Your task to perform on an android device: turn off wifi Image 0: 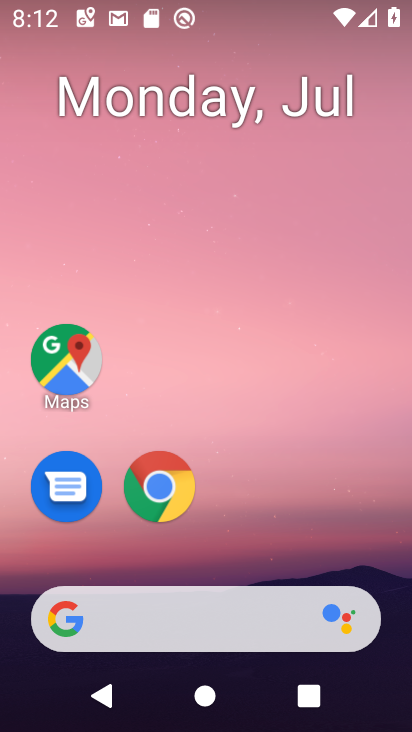
Step 0: drag from (340, 527) to (366, 78)
Your task to perform on an android device: turn off wifi Image 1: 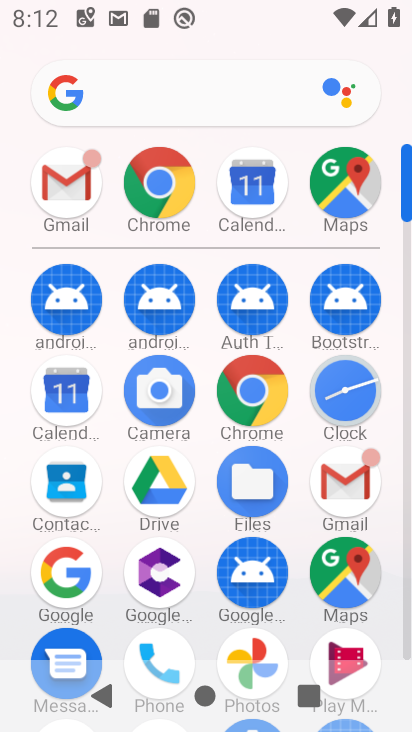
Step 1: drag from (291, 517) to (306, 213)
Your task to perform on an android device: turn off wifi Image 2: 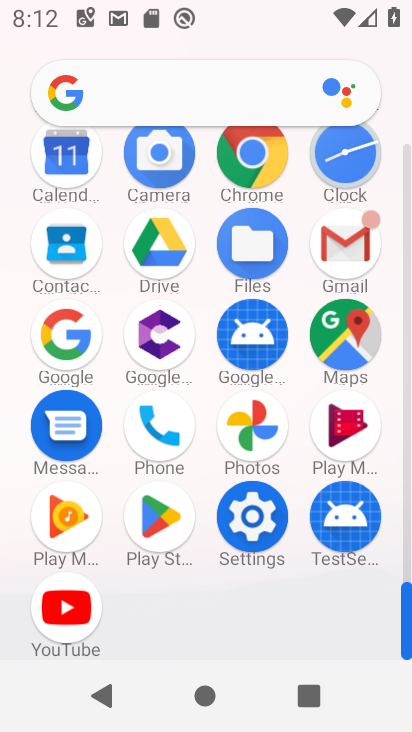
Step 2: click (264, 513)
Your task to perform on an android device: turn off wifi Image 3: 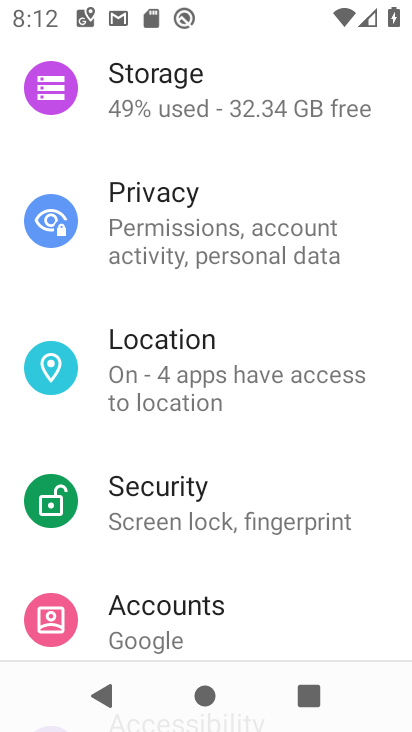
Step 3: drag from (378, 209) to (376, 327)
Your task to perform on an android device: turn off wifi Image 4: 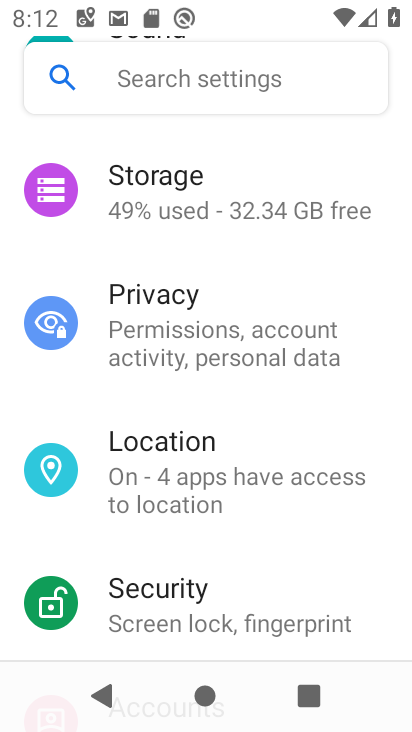
Step 4: drag from (379, 170) to (382, 305)
Your task to perform on an android device: turn off wifi Image 5: 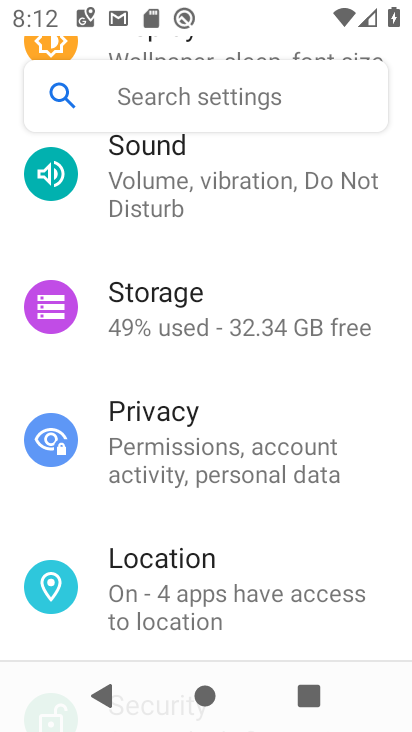
Step 5: drag from (387, 192) to (387, 383)
Your task to perform on an android device: turn off wifi Image 6: 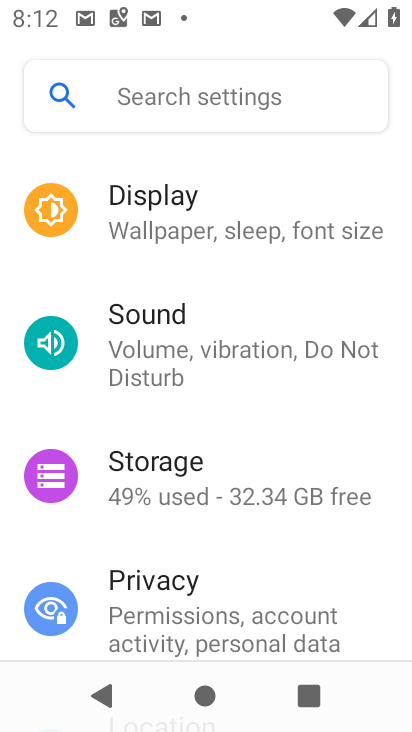
Step 6: drag from (384, 176) to (393, 357)
Your task to perform on an android device: turn off wifi Image 7: 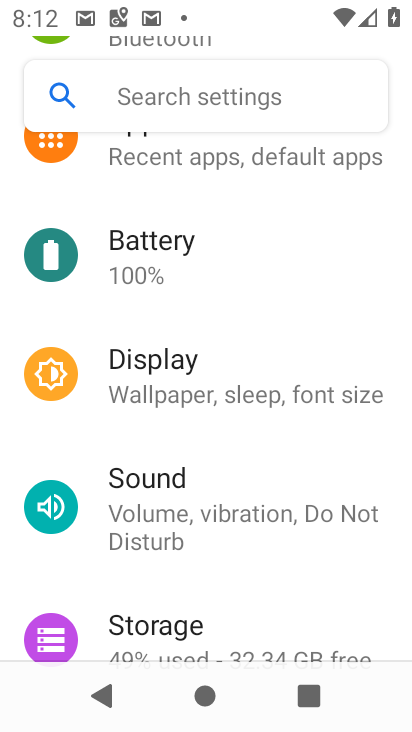
Step 7: drag from (371, 198) to (375, 339)
Your task to perform on an android device: turn off wifi Image 8: 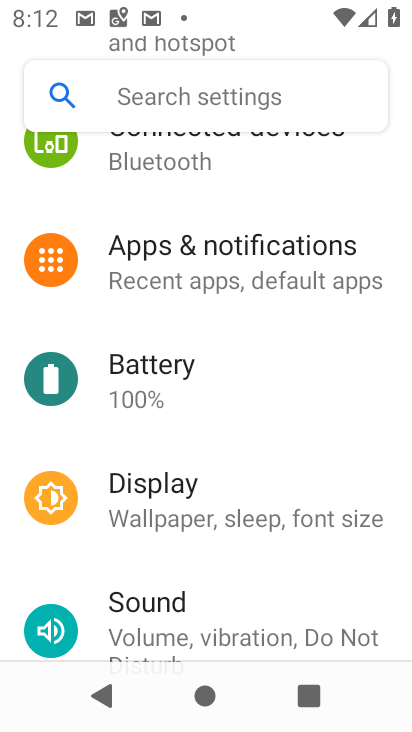
Step 8: drag from (369, 175) to (383, 350)
Your task to perform on an android device: turn off wifi Image 9: 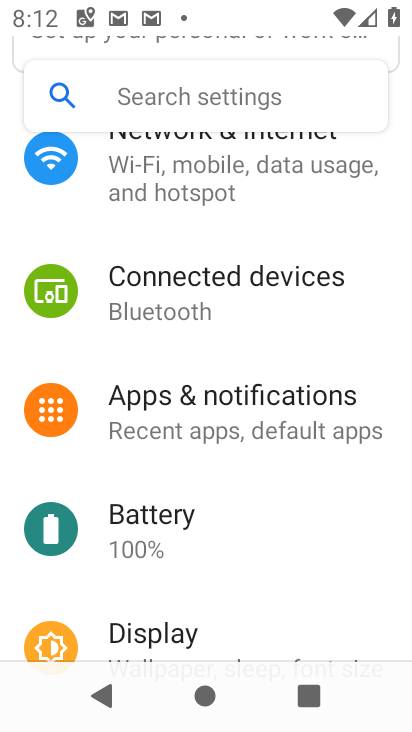
Step 9: drag from (358, 199) to (365, 375)
Your task to perform on an android device: turn off wifi Image 10: 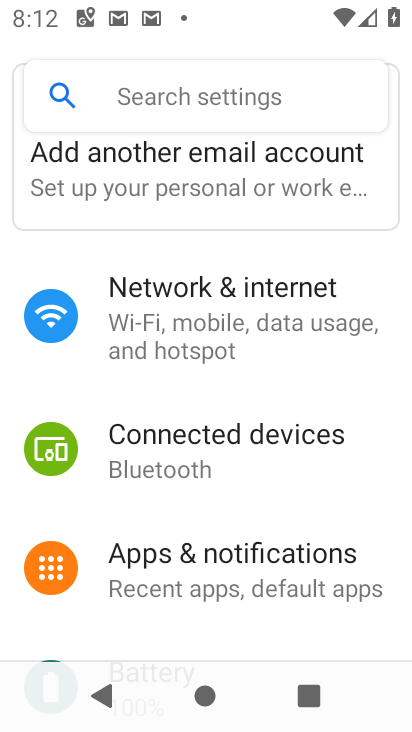
Step 10: click (275, 327)
Your task to perform on an android device: turn off wifi Image 11: 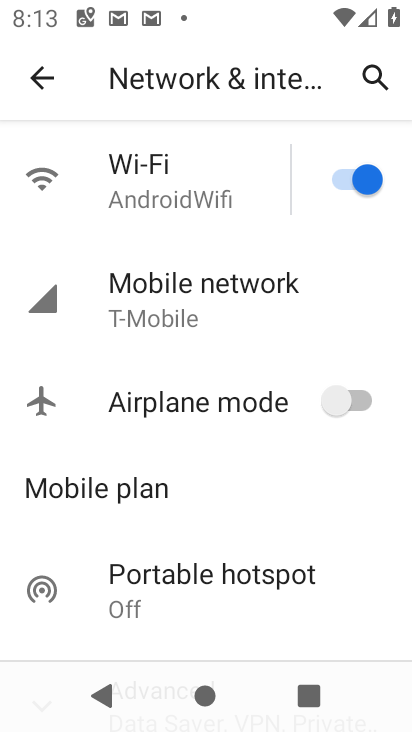
Step 11: click (360, 187)
Your task to perform on an android device: turn off wifi Image 12: 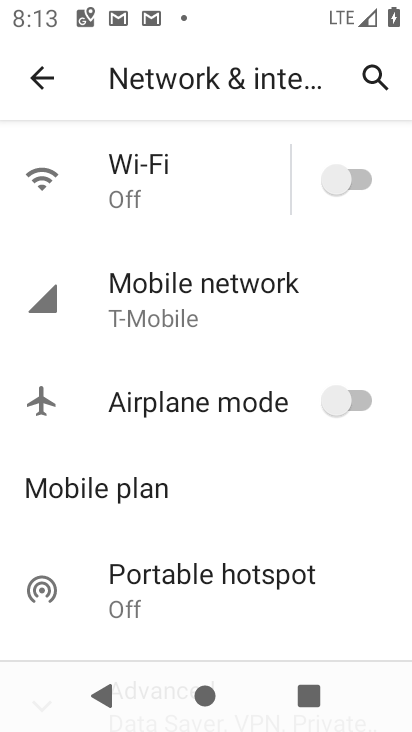
Step 12: task complete